Your task to perform on an android device: turn on sleep mode Image 0: 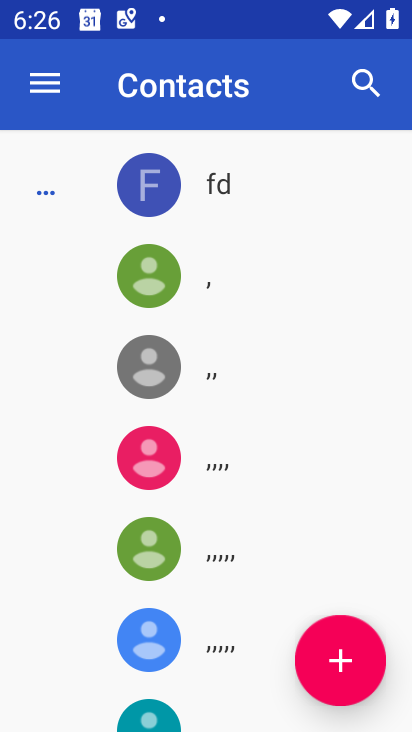
Step 0: press home button
Your task to perform on an android device: turn on sleep mode Image 1: 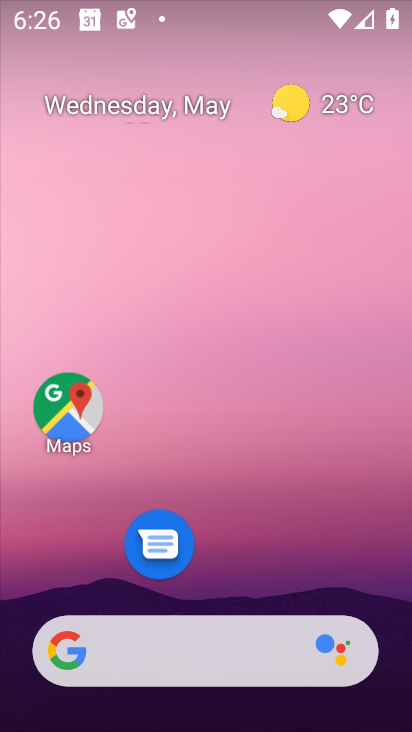
Step 1: drag from (263, 510) to (159, 35)
Your task to perform on an android device: turn on sleep mode Image 2: 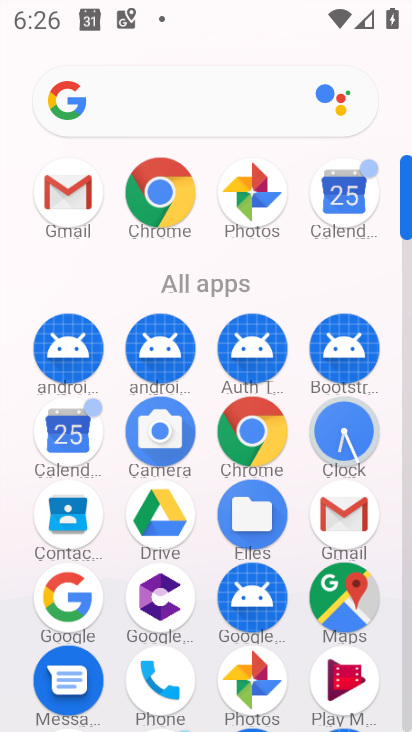
Step 2: drag from (198, 634) to (165, 252)
Your task to perform on an android device: turn on sleep mode Image 3: 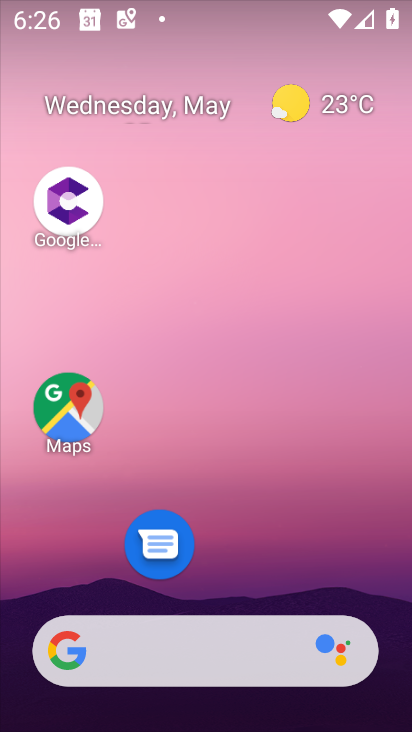
Step 3: drag from (257, 516) to (250, 67)
Your task to perform on an android device: turn on sleep mode Image 4: 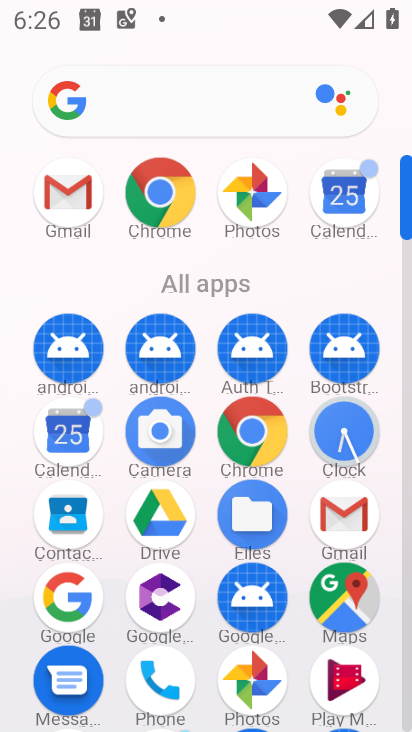
Step 4: drag from (206, 580) to (188, 361)
Your task to perform on an android device: turn on sleep mode Image 5: 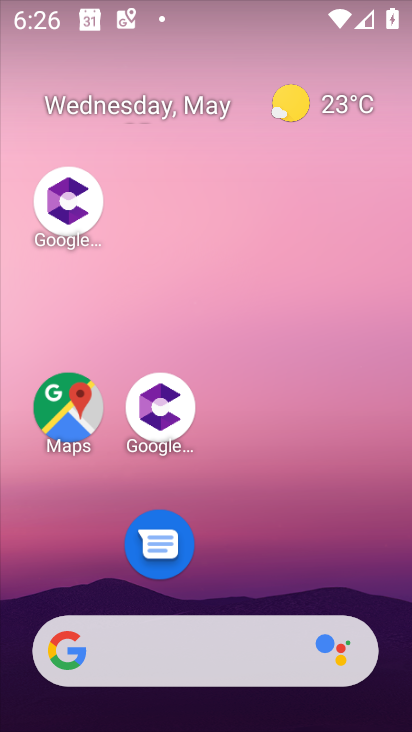
Step 5: drag from (252, 542) to (214, 233)
Your task to perform on an android device: turn on sleep mode Image 6: 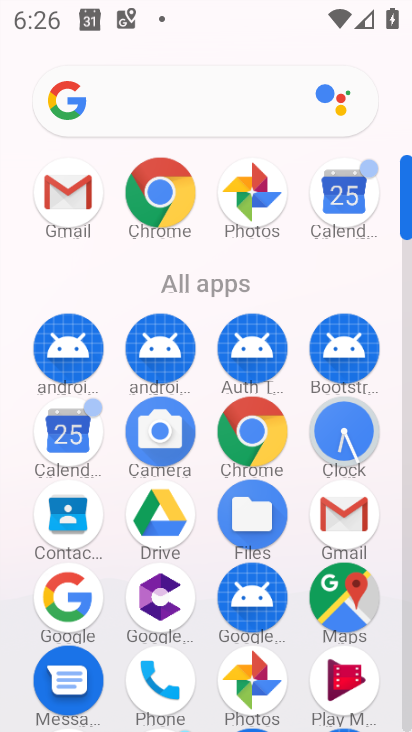
Step 6: drag from (208, 553) to (215, 263)
Your task to perform on an android device: turn on sleep mode Image 7: 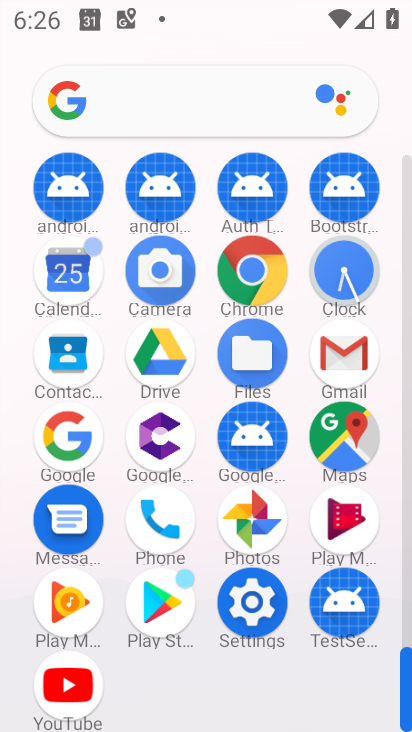
Step 7: click (260, 601)
Your task to perform on an android device: turn on sleep mode Image 8: 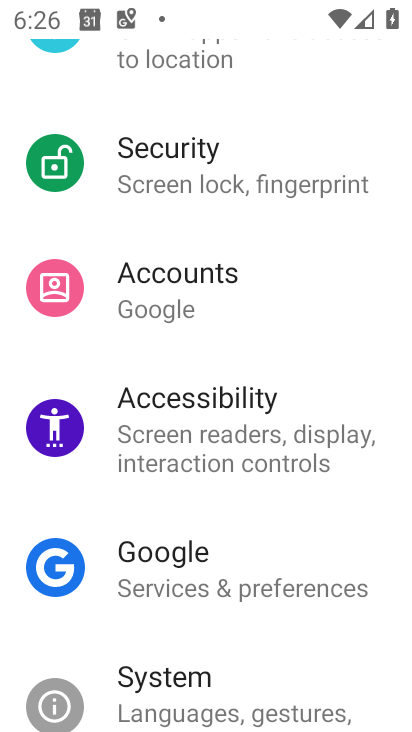
Step 8: drag from (219, 215) to (280, 730)
Your task to perform on an android device: turn on sleep mode Image 9: 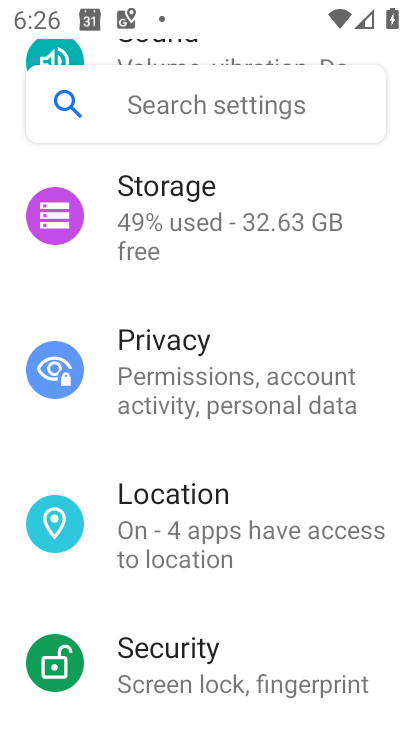
Step 9: drag from (230, 286) to (275, 726)
Your task to perform on an android device: turn on sleep mode Image 10: 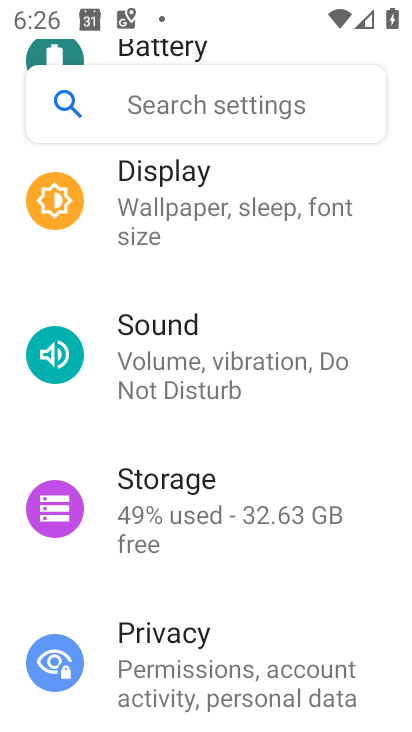
Step 10: click (162, 163)
Your task to perform on an android device: turn on sleep mode Image 11: 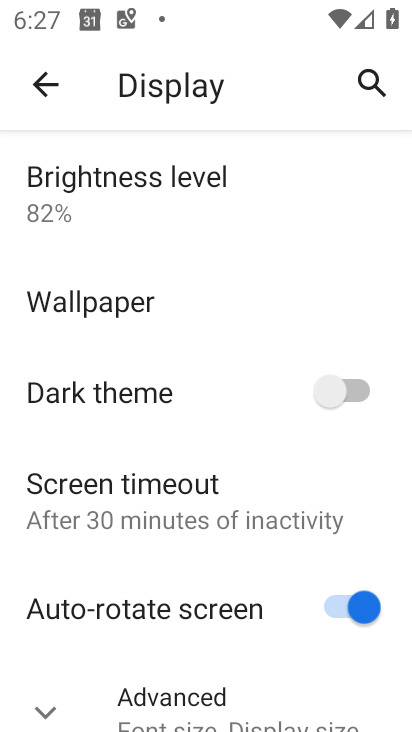
Step 11: task complete